Your task to perform on an android device: Go to Wikipedia Image 0: 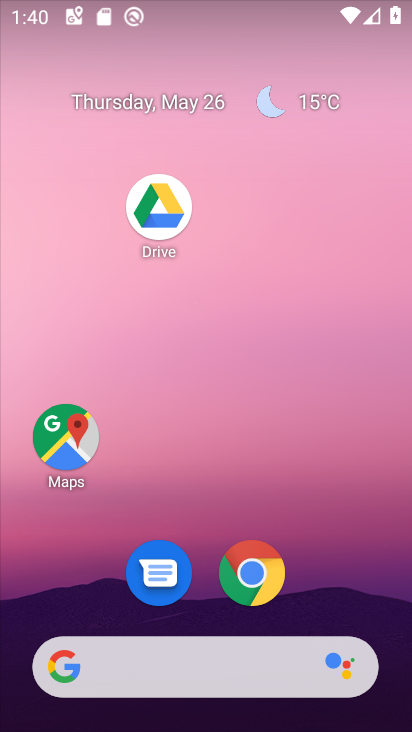
Step 0: click (249, 580)
Your task to perform on an android device: Go to Wikipedia Image 1: 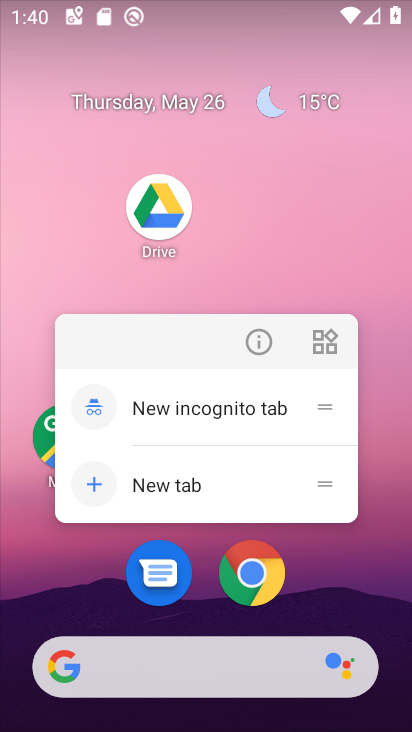
Step 1: click (255, 580)
Your task to perform on an android device: Go to Wikipedia Image 2: 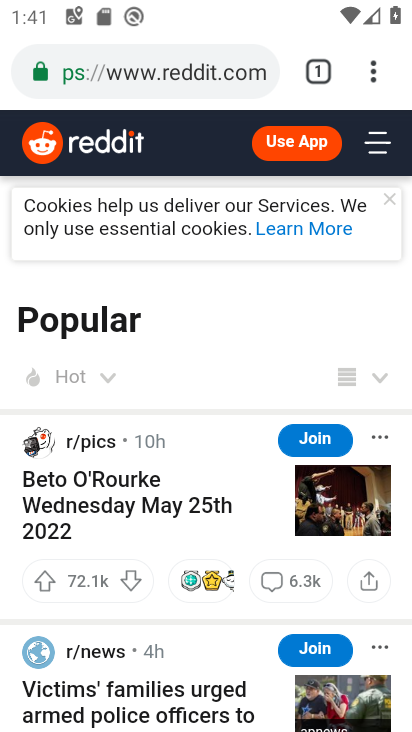
Step 2: click (320, 77)
Your task to perform on an android device: Go to Wikipedia Image 3: 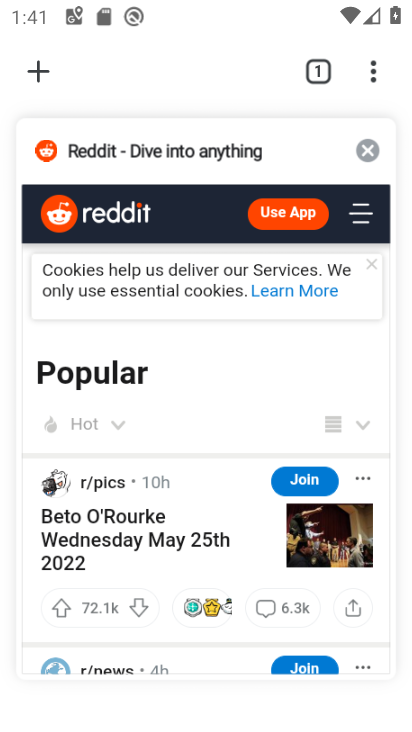
Step 3: click (373, 157)
Your task to perform on an android device: Go to Wikipedia Image 4: 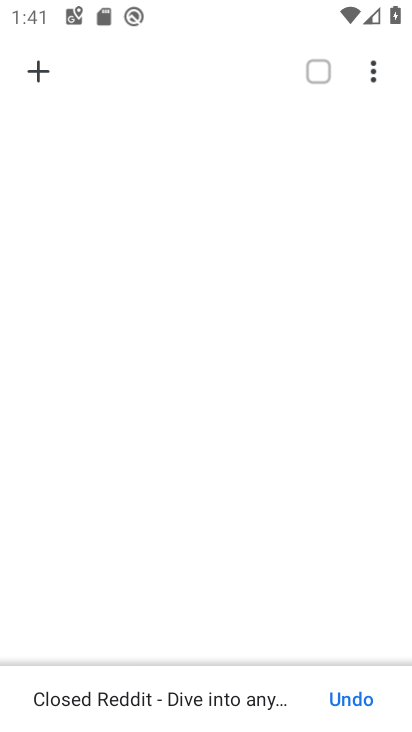
Step 4: click (40, 67)
Your task to perform on an android device: Go to Wikipedia Image 5: 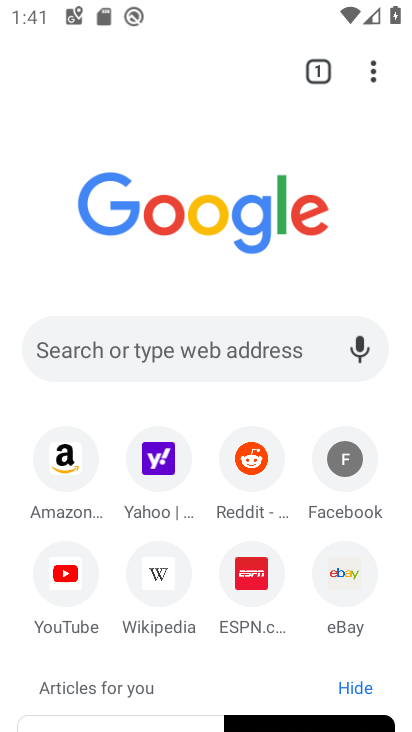
Step 5: click (144, 571)
Your task to perform on an android device: Go to Wikipedia Image 6: 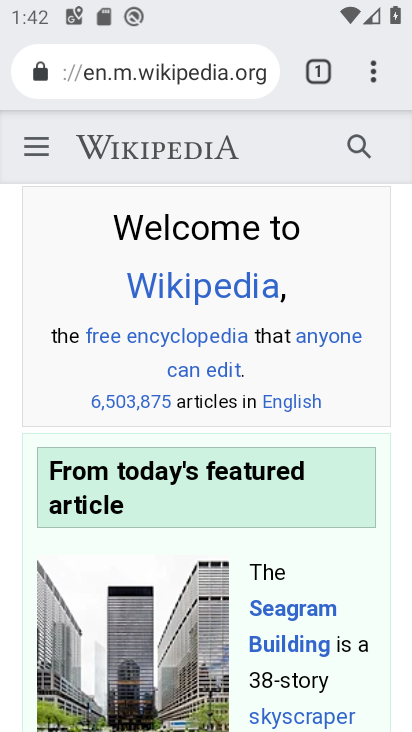
Step 6: task complete